Your task to perform on an android device: Clear the shopping cart on bestbuy.com. Add "dell alienware" to the cart on bestbuy.com Image 0: 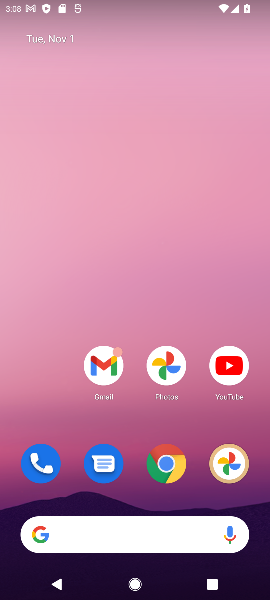
Step 0: drag from (142, 413) to (268, 316)
Your task to perform on an android device: Clear the shopping cart on bestbuy.com. Add "dell alienware" to the cart on bestbuy.com Image 1: 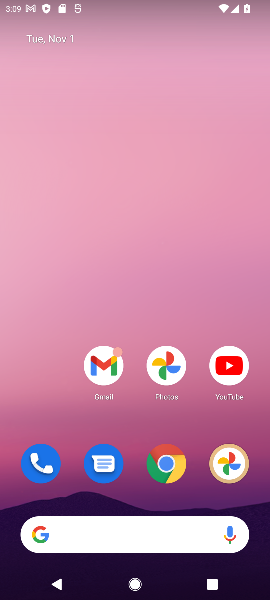
Step 1: drag from (146, 419) to (212, 0)
Your task to perform on an android device: Clear the shopping cart on bestbuy.com. Add "dell alienware" to the cart on bestbuy.com Image 2: 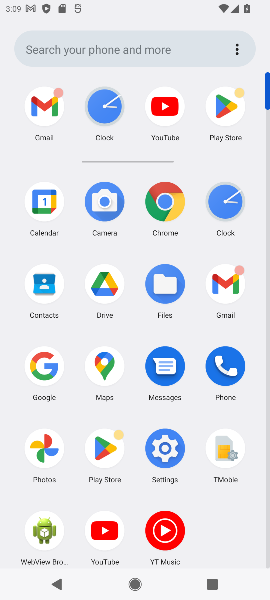
Step 2: click (180, 199)
Your task to perform on an android device: Clear the shopping cart on bestbuy.com. Add "dell alienware" to the cart on bestbuy.com Image 3: 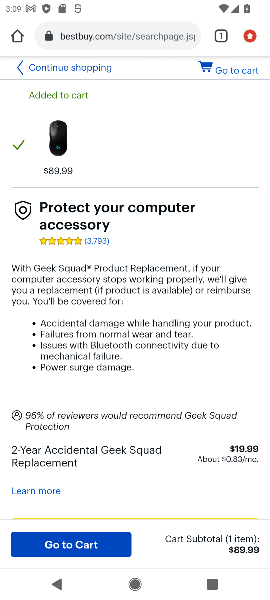
Step 3: drag from (216, 94) to (124, 399)
Your task to perform on an android device: Clear the shopping cart on bestbuy.com. Add "dell alienware" to the cart on bestbuy.com Image 4: 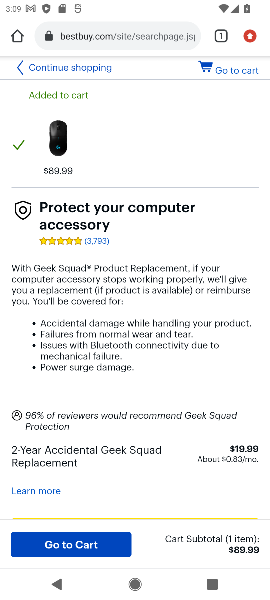
Step 4: click (222, 67)
Your task to perform on an android device: Clear the shopping cart on bestbuy.com. Add "dell alienware" to the cart on bestbuy.com Image 5: 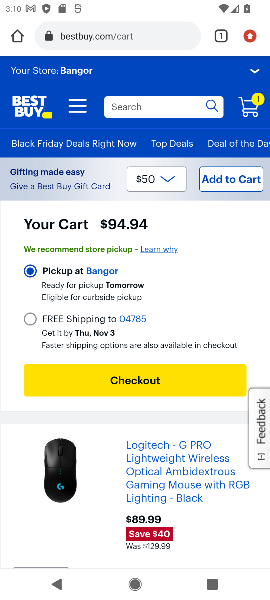
Step 5: click (253, 104)
Your task to perform on an android device: Clear the shopping cart on bestbuy.com. Add "dell alienware" to the cart on bestbuy.com Image 6: 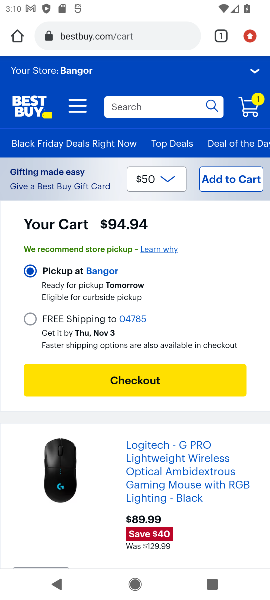
Step 6: drag from (145, 529) to (161, 91)
Your task to perform on an android device: Clear the shopping cart on bestbuy.com. Add "dell alienware" to the cart on bestbuy.com Image 7: 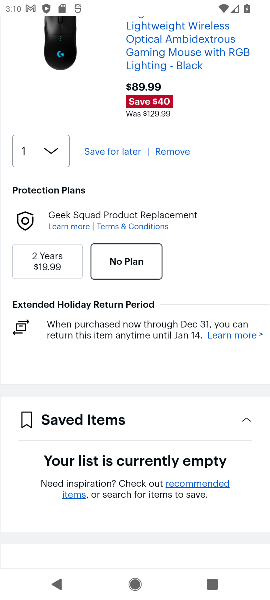
Step 7: click (167, 153)
Your task to perform on an android device: Clear the shopping cart on bestbuy.com. Add "dell alienware" to the cart on bestbuy.com Image 8: 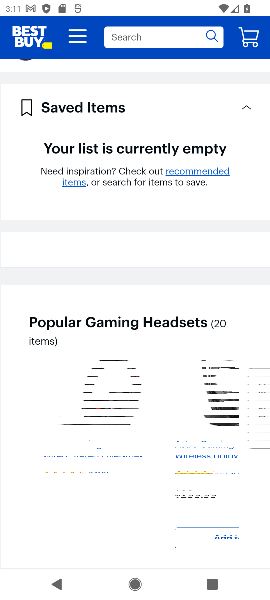
Step 8: click (162, 36)
Your task to perform on an android device: Clear the shopping cart on bestbuy.com. Add "dell alienware" to the cart on bestbuy.com Image 9: 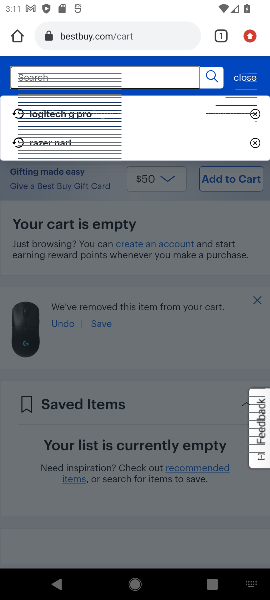
Step 9: type "dell alienware"
Your task to perform on an android device: Clear the shopping cart on bestbuy.com. Add "dell alienware" to the cart on bestbuy.com Image 10: 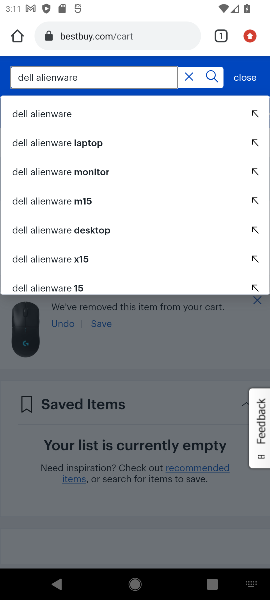
Step 10: press enter
Your task to perform on an android device: Clear the shopping cart on bestbuy.com. Add "dell alienware" to the cart on bestbuy.com Image 11: 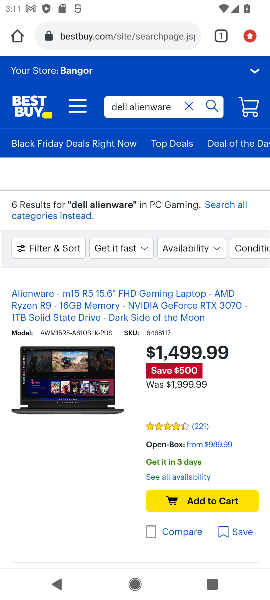
Step 11: drag from (116, 491) to (194, 165)
Your task to perform on an android device: Clear the shopping cart on bestbuy.com. Add "dell alienware" to the cart on bestbuy.com Image 12: 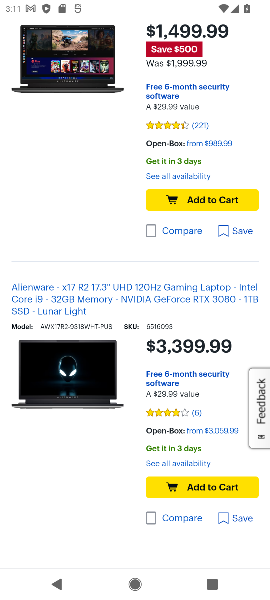
Step 12: drag from (43, 470) to (89, 428)
Your task to perform on an android device: Clear the shopping cart on bestbuy.com. Add "dell alienware" to the cart on bestbuy.com Image 13: 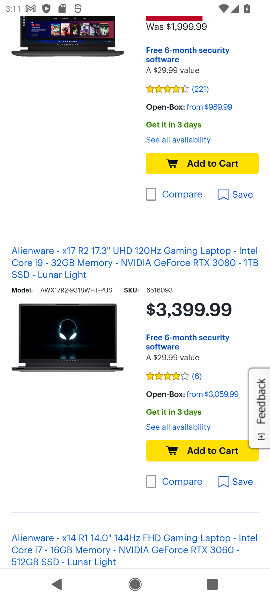
Step 13: drag from (82, 165) to (60, 365)
Your task to perform on an android device: Clear the shopping cart on bestbuy.com. Add "dell alienware" to the cart on bestbuy.com Image 14: 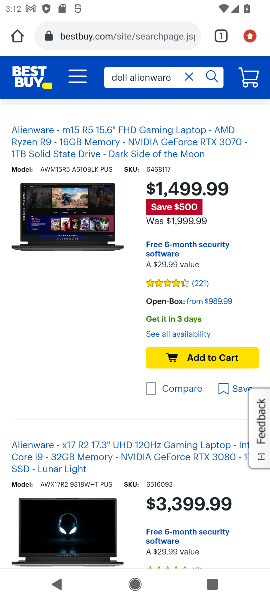
Step 14: click (196, 361)
Your task to perform on an android device: Clear the shopping cart on bestbuy.com. Add "dell alienware" to the cart on bestbuy.com Image 15: 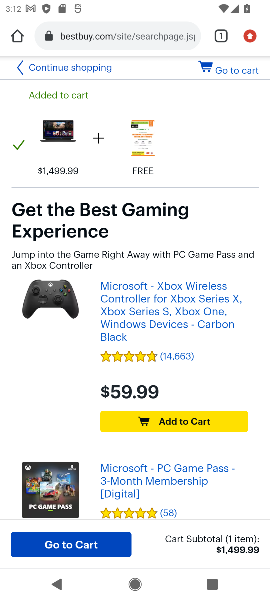
Step 15: task complete